Your task to perform on an android device: Play the last video I watched on Youtube Image 0: 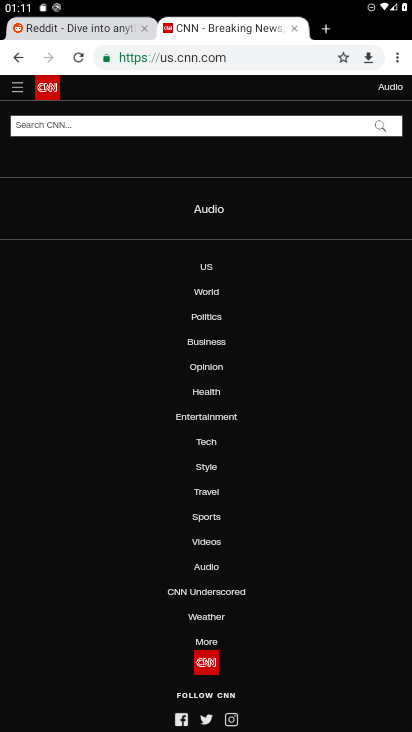
Step 0: press home button
Your task to perform on an android device: Play the last video I watched on Youtube Image 1: 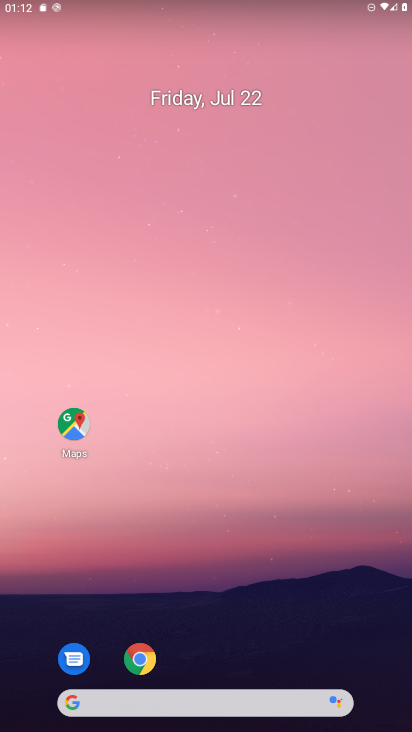
Step 1: drag from (196, 704) to (174, 150)
Your task to perform on an android device: Play the last video I watched on Youtube Image 2: 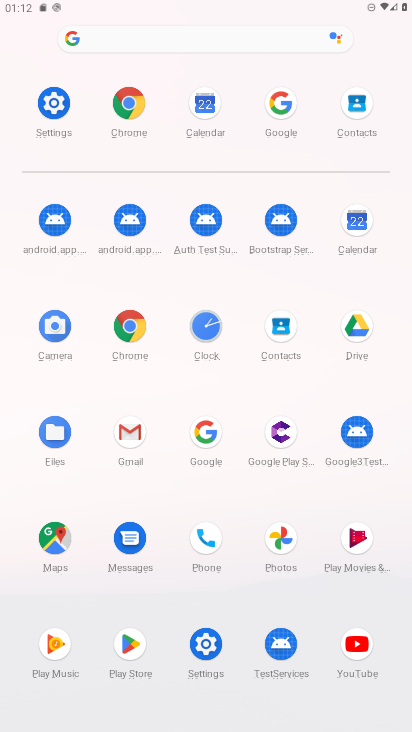
Step 2: click (358, 641)
Your task to perform on an android device: Play the last video I watched on Youtube Image 3: 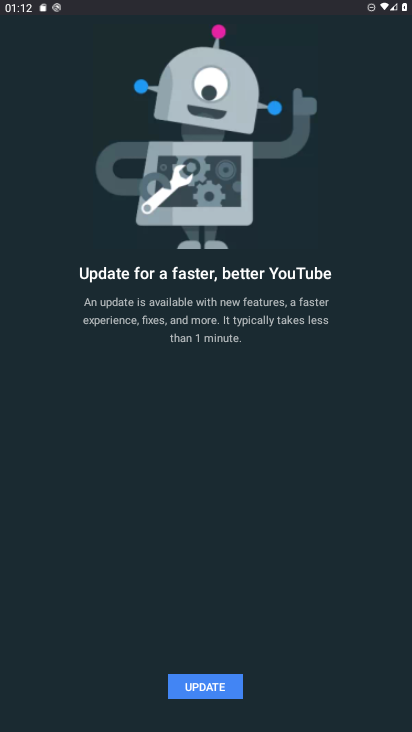
Step 3: click (210, 688)
Your task to perform on an android device: Play the last video I watched on Youtube Image 4: 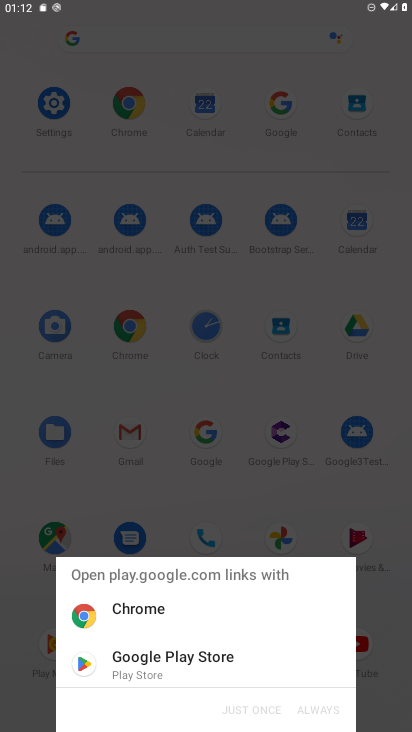
Step 4: click (165, 658)
Your task to perform on an android device: Play the last video I watched on Youtube Image 5: 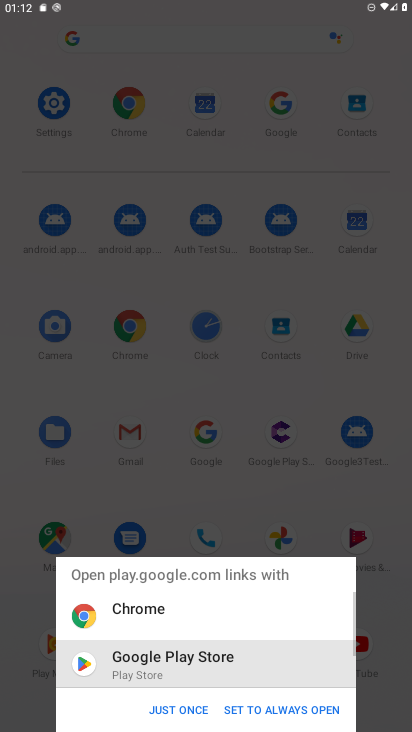
Step 5: click (180, 712)
Your task to perform on an android device: Play the last video I watched on Youtube Image 6: 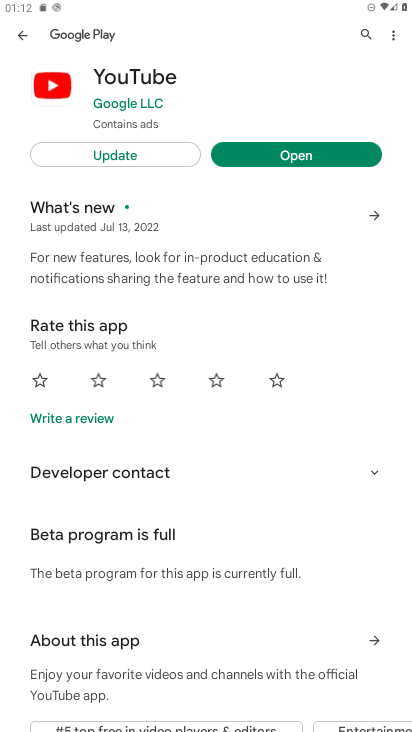
Step 6: click (117, 151)
Your task to perform on an android device: Play the last video I watched on Youtube Image 7: 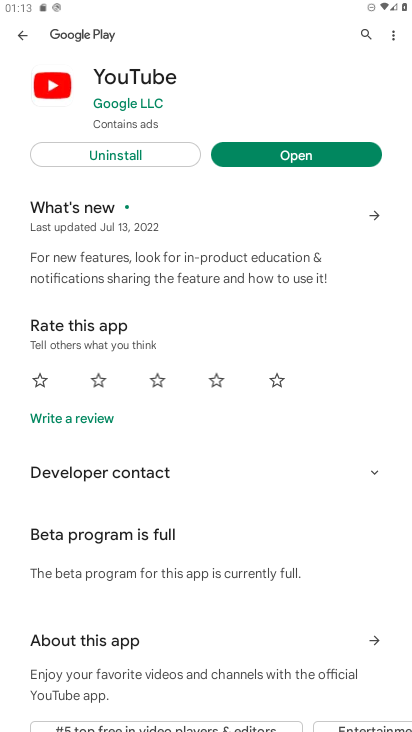
Step 7: click (287, 157)
Your task to perform on an android device: Play the last video I watched on Youtube Image 8: 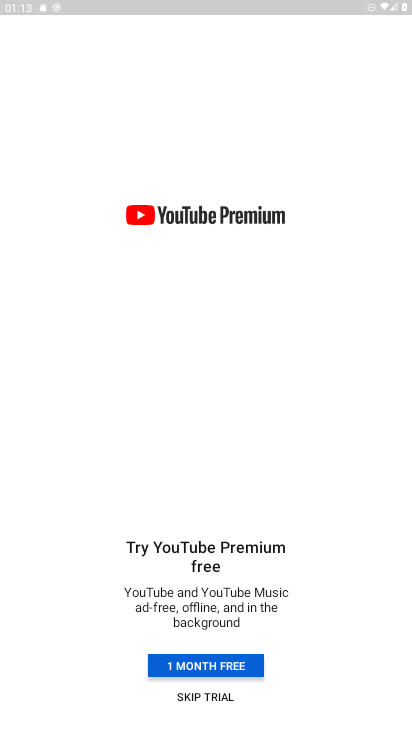
Step 8: click (215, 693)
Your task to perform on an android device: Play the last video I watched on Youtube Image 9: 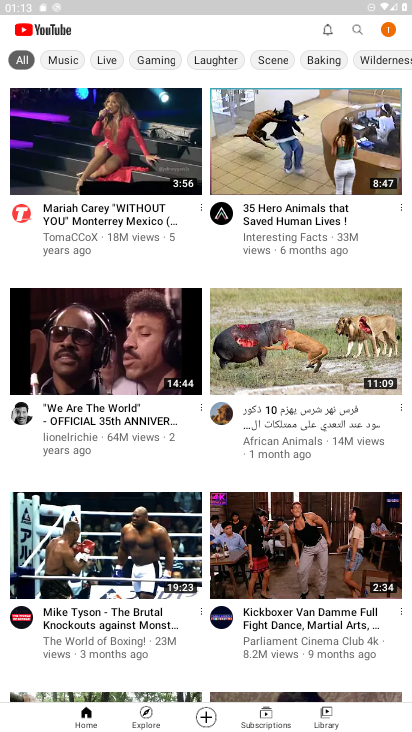
Step 9: click (322, 711)
Your task to perform on an android device: Play the last video I watched on Youtube Image 10: 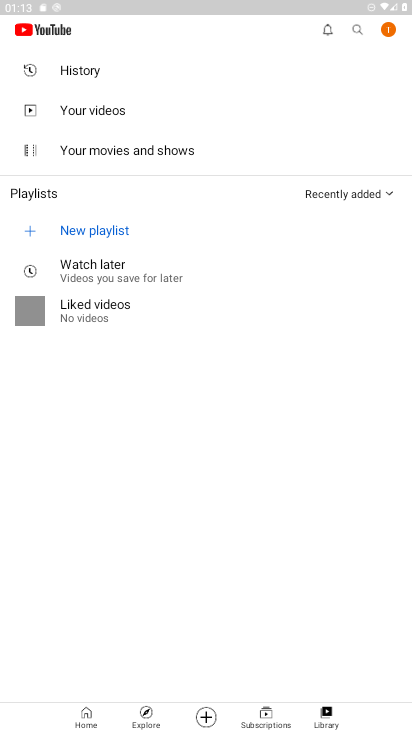
Step 10: click (69, 74)
Your task to perform on an android device: Play the last video I watched on Youtube Image 11: 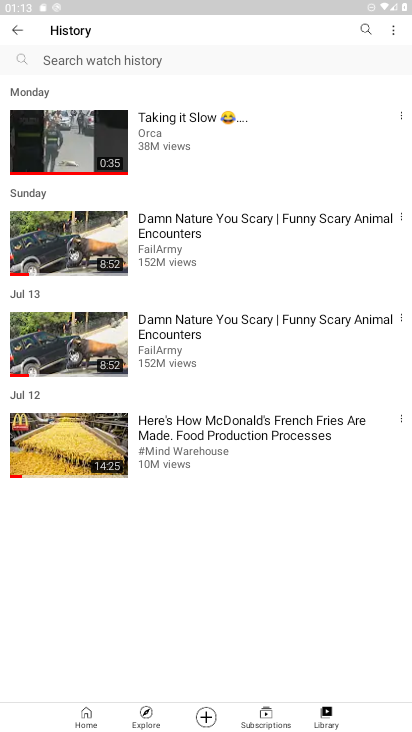
Step 11: click (76, 142)
Your task to perform on an android device: Play the last video I watched on Youtube Image 12: 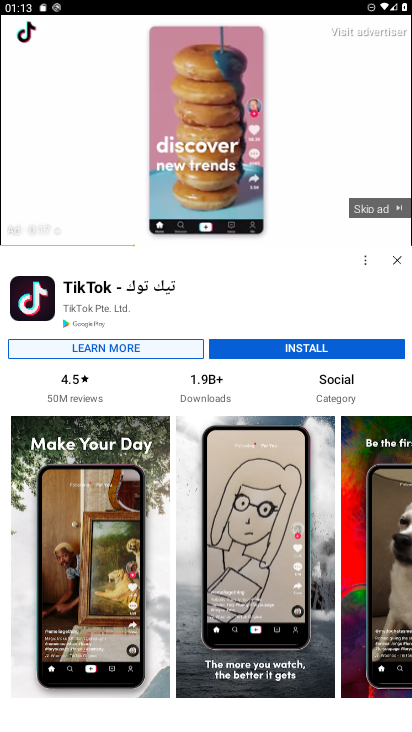
Step 12: click (378, 209)
Your task to perform on an android device: Play the last video I watched on Youtube Image 13: 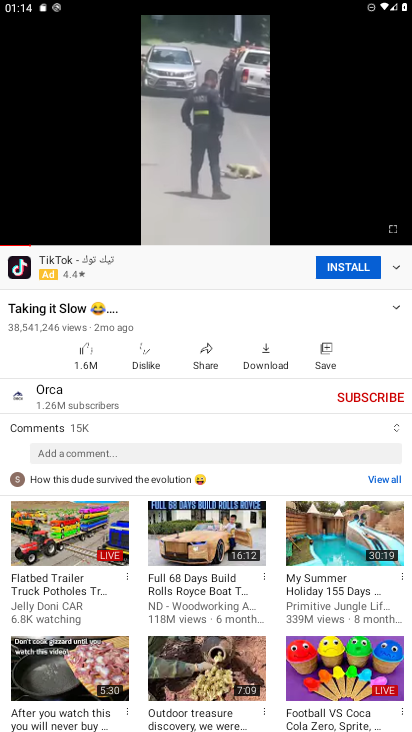
Step 13: click (195, 145)
Your task to perform on an android device: Play the last video I watched on Youtube Image 14: 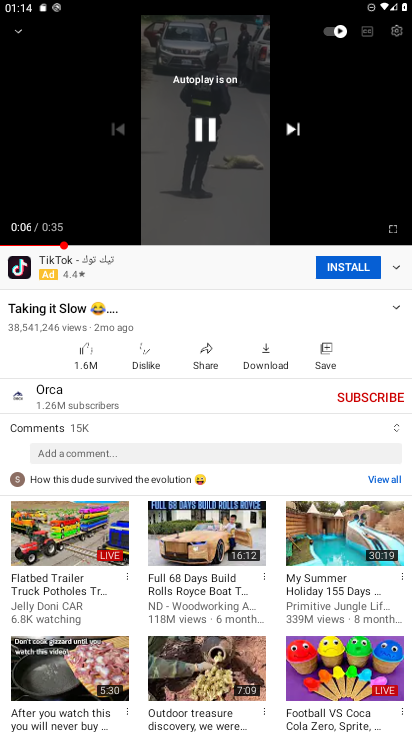
Step 14: click (202, 130)
Your task to perform on an android device: Play the last video I watched on Youtube Image 15: 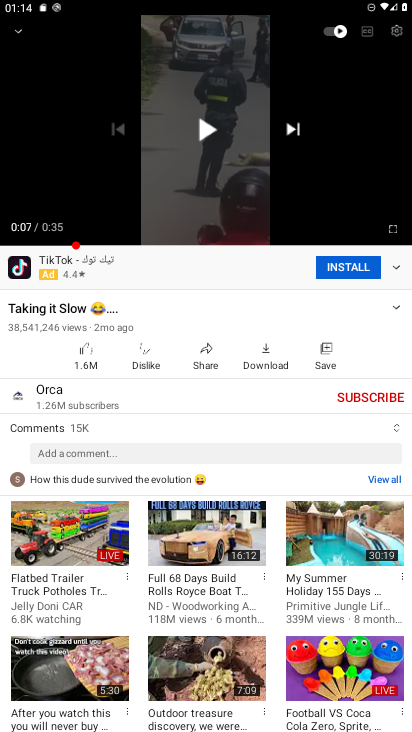
Step 15: task complete